Your task to perform on an android device: turn off translation in the chrome app Image 0: 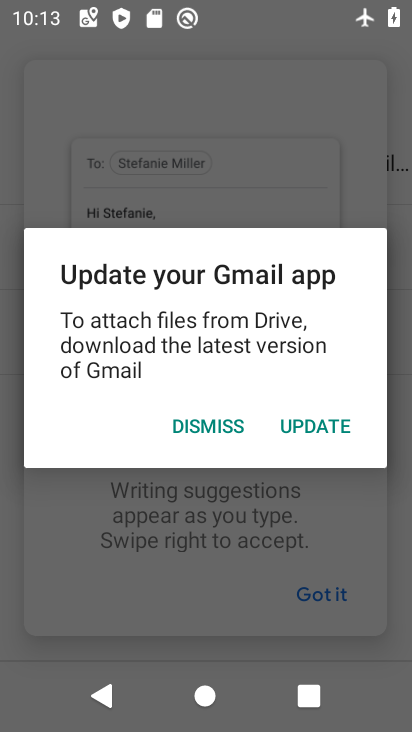
Step 0: press home button
Your task to perform on an android device: turn off translation in the chrome app Image 1: 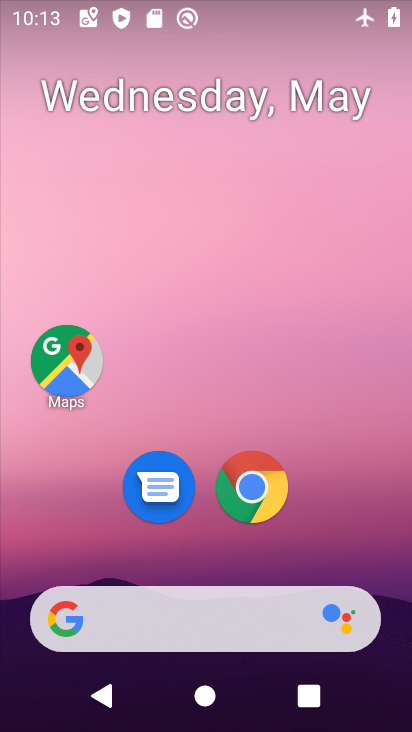
Step 1: click (239, 485)
Your task to perform on an android device: turn off translation in the chrome app Image 2: 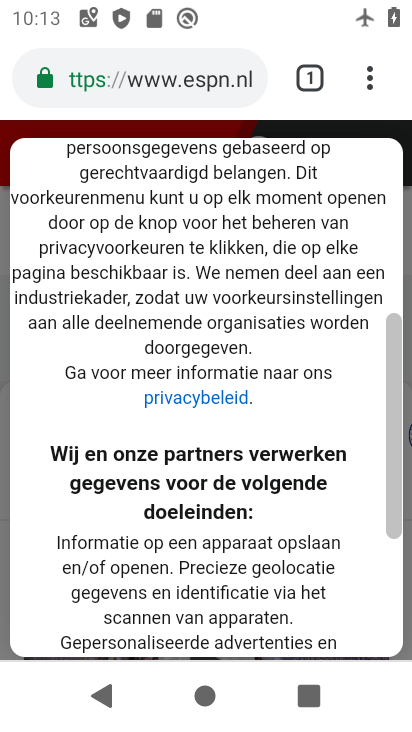
Step 2: click (373, 80)
Your task to perform on an android device: turn off translation in the chrome app Image 3: 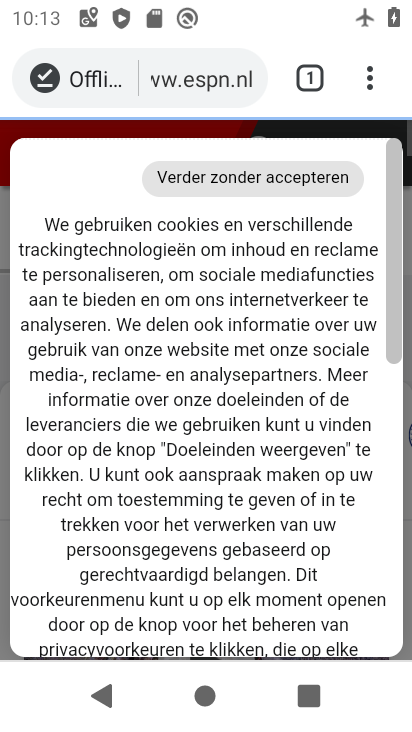
Step 3: drag from (373, 80) to (99, 558)
Your task to perform on an android device: turn off translation in the chrome app Image 4: 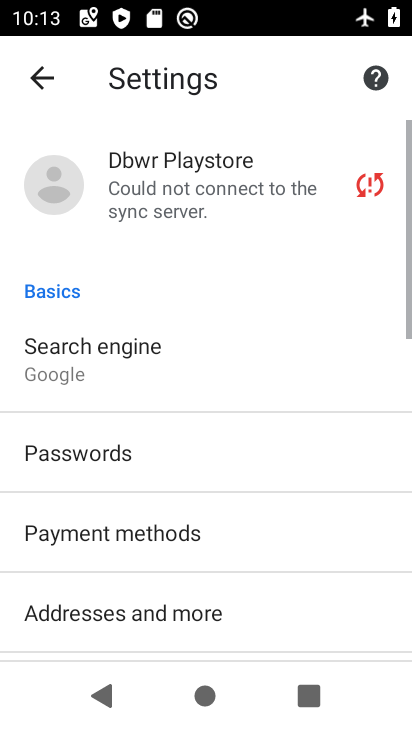
Step 4: drag from (127, 550) to (90, 0)
Your task to perform on an android device: turn off translation in the chrome app Image 5: 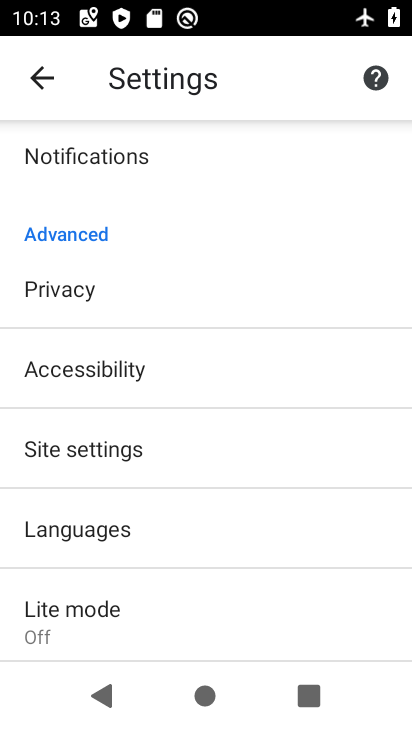
Step 5: click (106, 515)
Your task to perform on an android device: turn off translation in the chrome app Image 6: 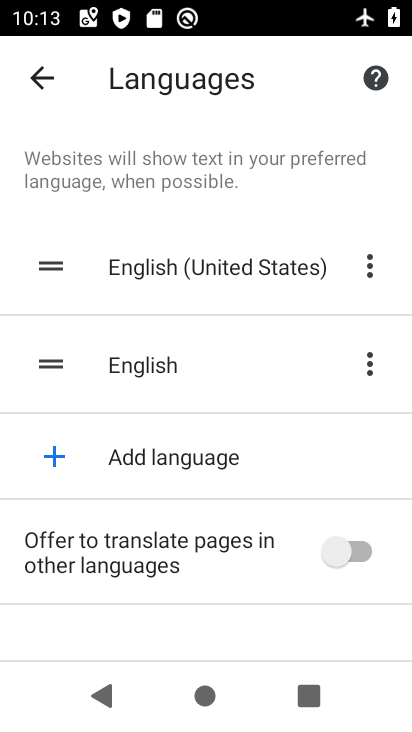
Step 6: task complete